Your task to perform on an android device: open app "YouTube Kids" (install if not already installed) and go to login screen Image 0: 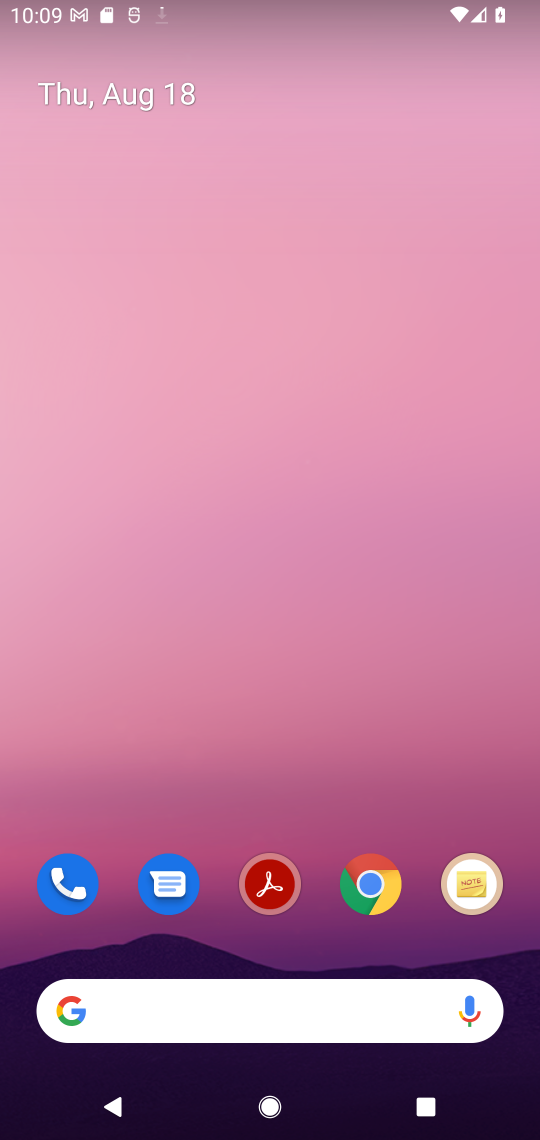
Step 0: drag from (309, 922) to (383, 65)
Your task to perform on an android device: open app "YouTube Kids" (install if not already installed) and go to login screen Image 1: 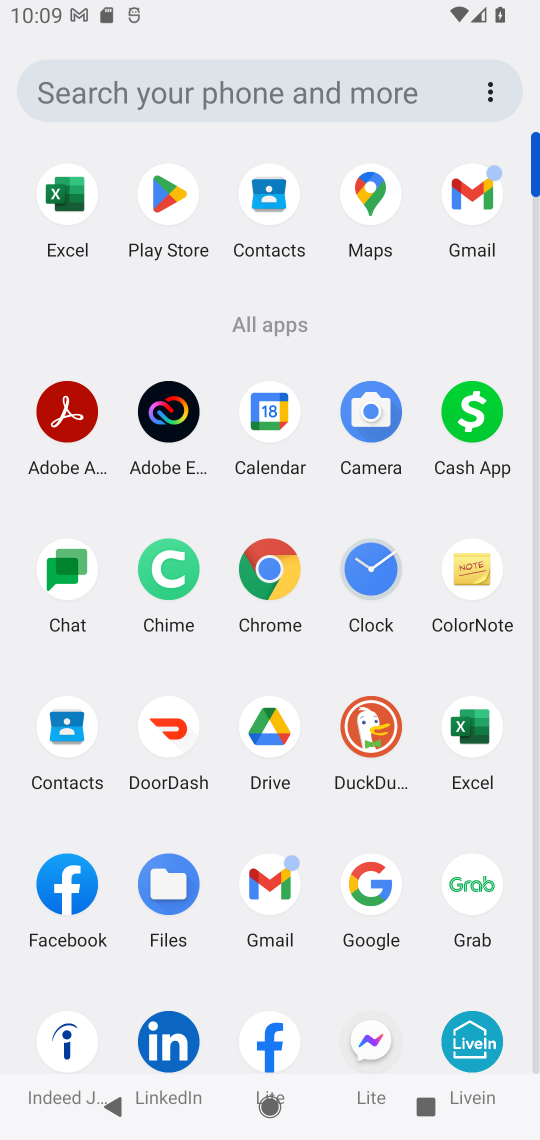
Step 1: click (537, 1066)
Your task to perform on an android device: open app "YouTube Kids" (install if not already installed) and go to login screen Image 2: 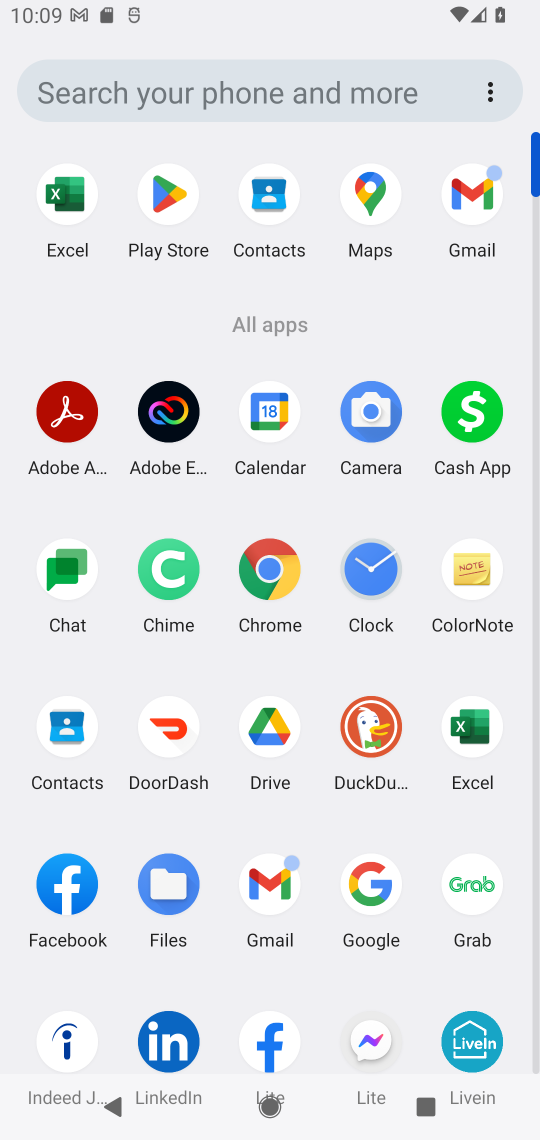
Step 2: click (537, 1066)
Your task to perform on an android device: open app "YouTube Kids" (install if not already installed) and go to login screen Image 3: 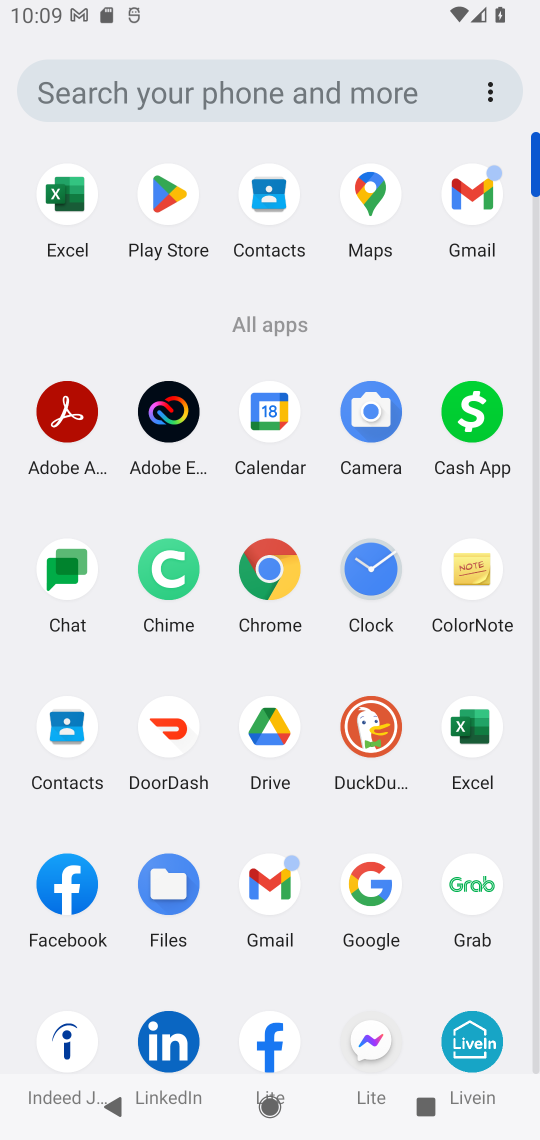
Step 3: click (537, 1066)
Your task to perform on an android device: open app "YouTube Kids" (install if not already installed) and go to login screen Image 4: 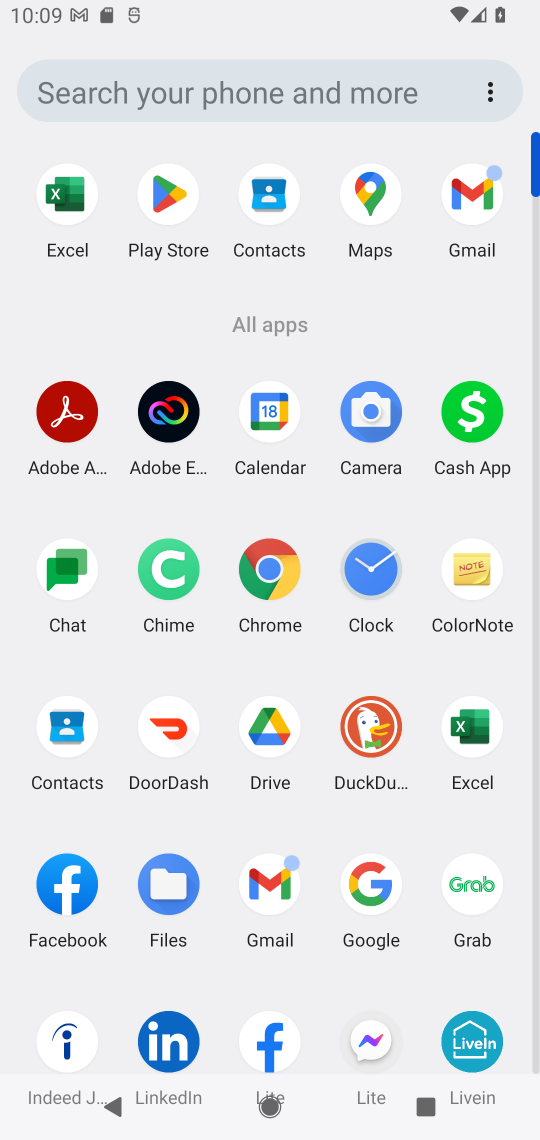
Step 4: drag from (533, 179) to (446, 1073)
Your task to perform on an android device: open app "YouTube Kids" (install if not already installed) and go to login screen Image 5: 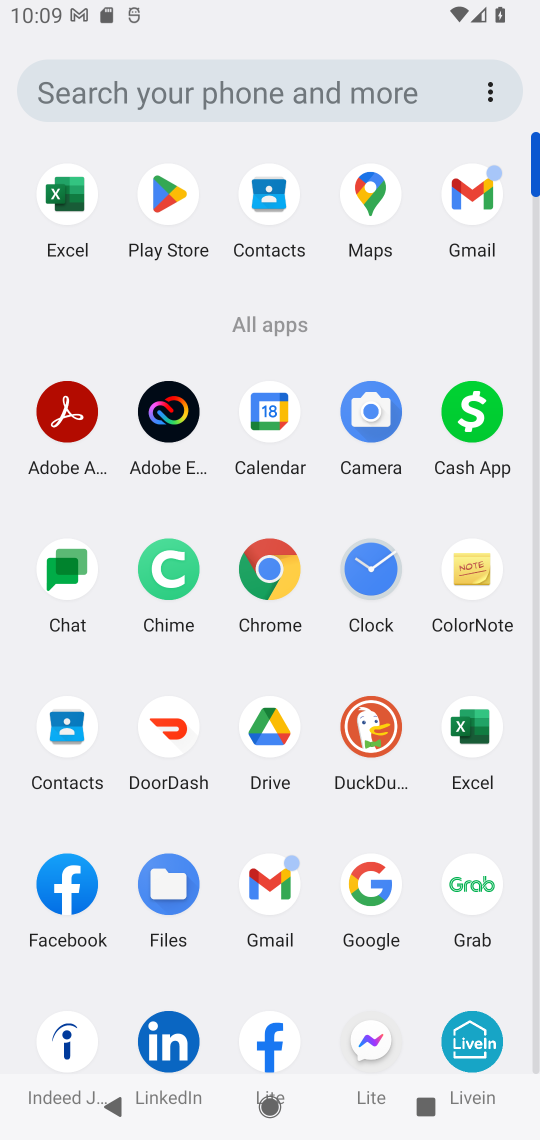
Step 5: drag from (355, 960) to (343, 273)
Your task to perform on an android device: open app "YouTube Kids" (install if not already installed) and go to login screen Image 6: 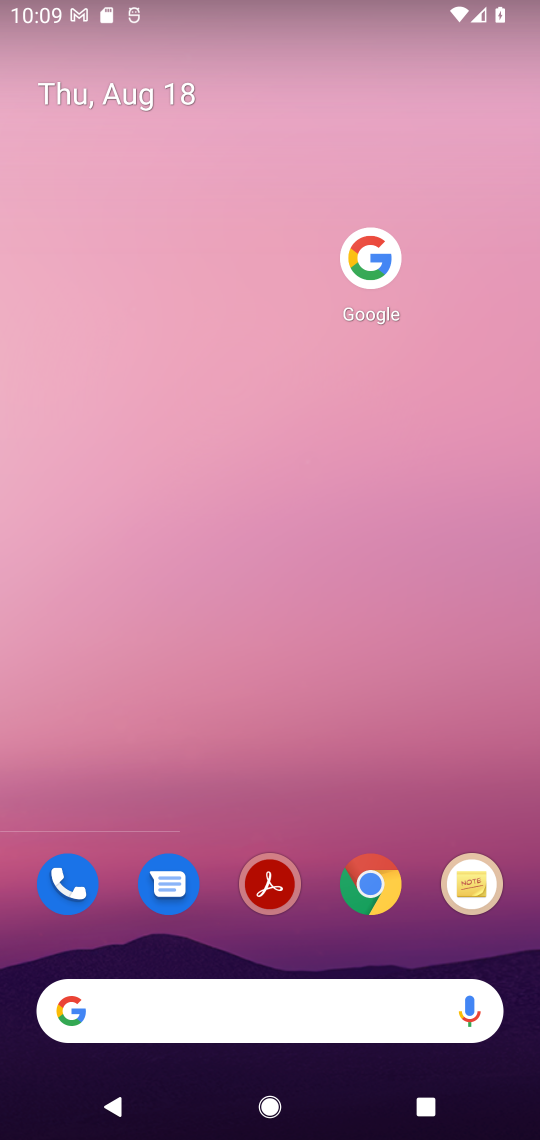
Step 6: click (273, 607)
Your task to perform on an android device: open app "YouTube Kids" (install if not already installed) and go to login screen Image 7: 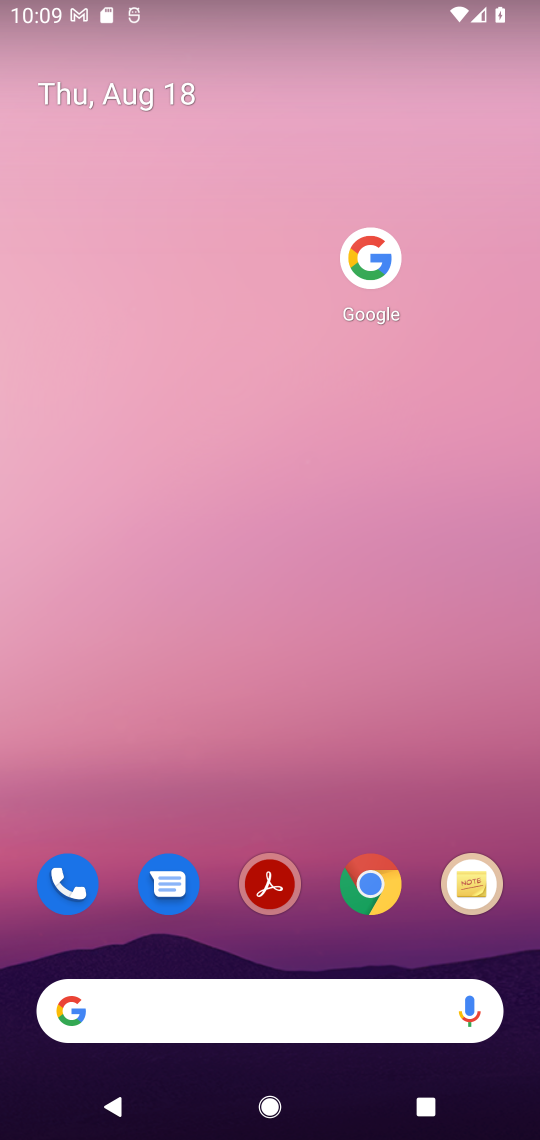
Step 7: drag from (302, 812) to (371, 65)
Your task to perform on an android device: open app "YouTube Kids" (install if not already installed) and go to login screen Image 8: 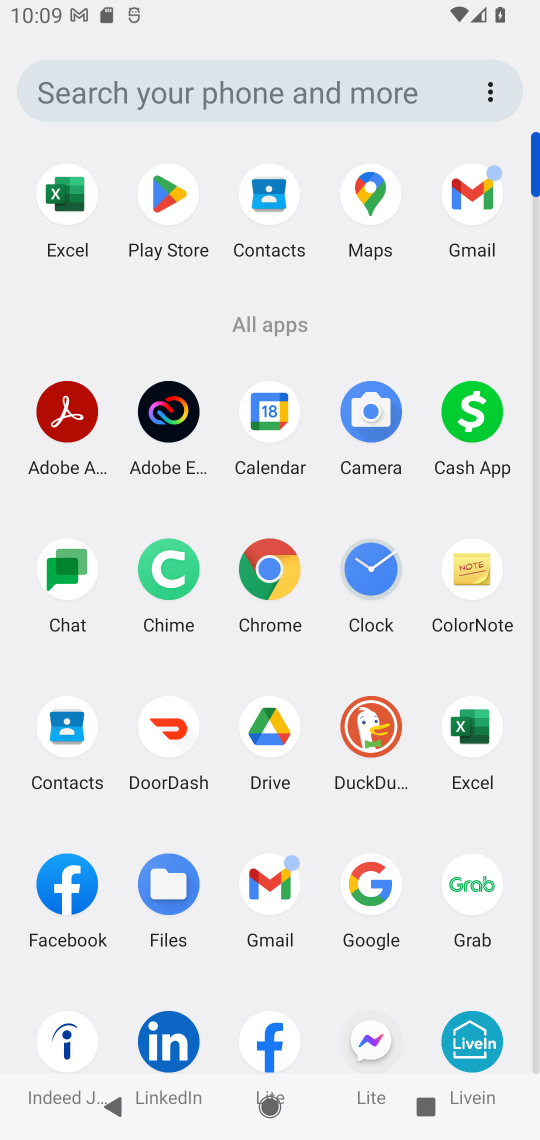
Step 8: drag from (329, 1017) to (337, 268)
Your task to perform on an android device: open app "YouTube Kids" (install if not already installed) and go to login screen Image 9: 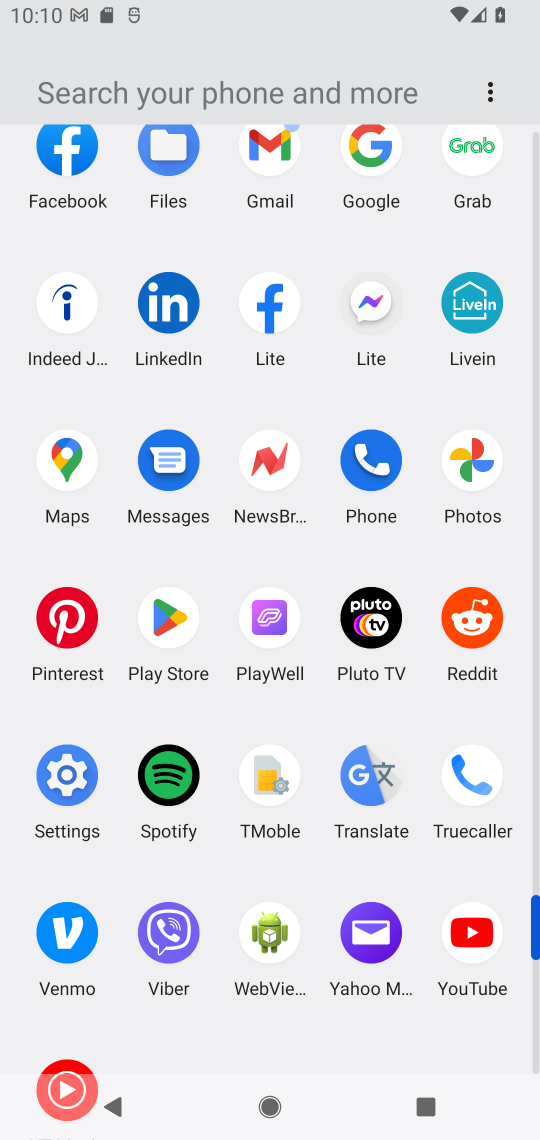
Step 9: click (495, 950)
Your task to perform on an android device: open app "YouTube Kids" (install if not already installed) and go to login screen Image 10: 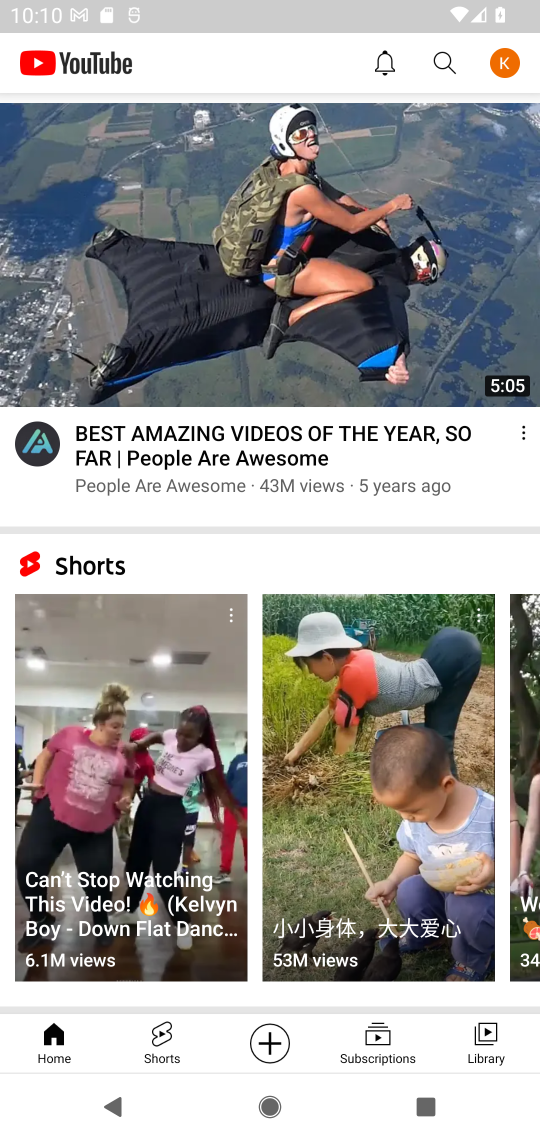
Step 10: task complete